Your task to perform on an android device: turn on translation in the chrome app Image 0: 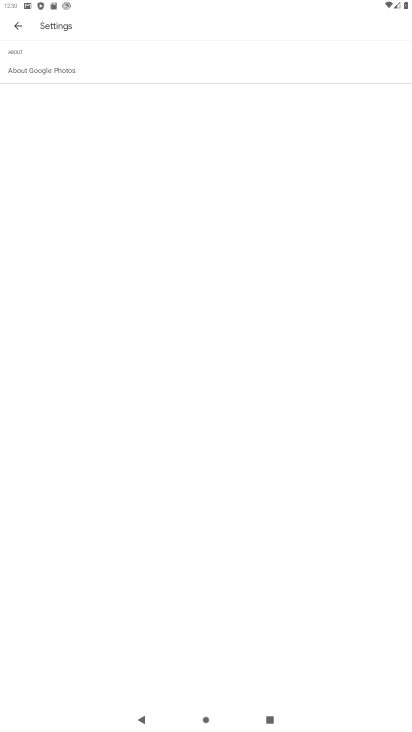
Step 0: press home button
Your task to perform on an android device: turn on translation in the chrome app Image 1: 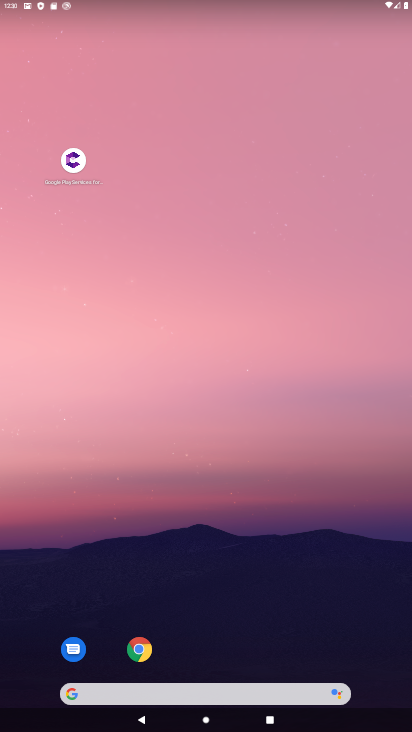
Step 1: click (131, 646)
Your task to perform on an android device: turn on translation in the chrome app Image 2: 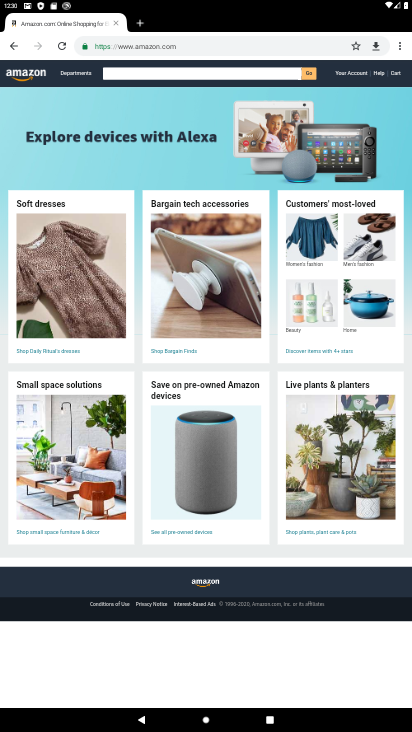
Step 2: click (397, 48)
Your task to perform on an android device: turn on translation in the chrome app Image 3: 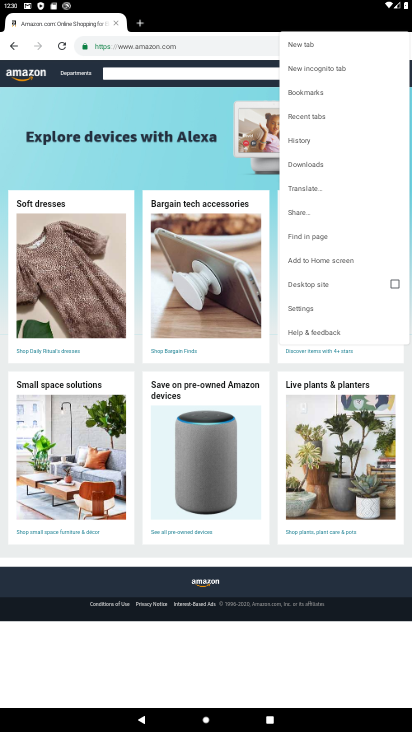
Step 3: click (312, 310)
Your task to perform on an android device: turn on translation in the chrome app Image 4: 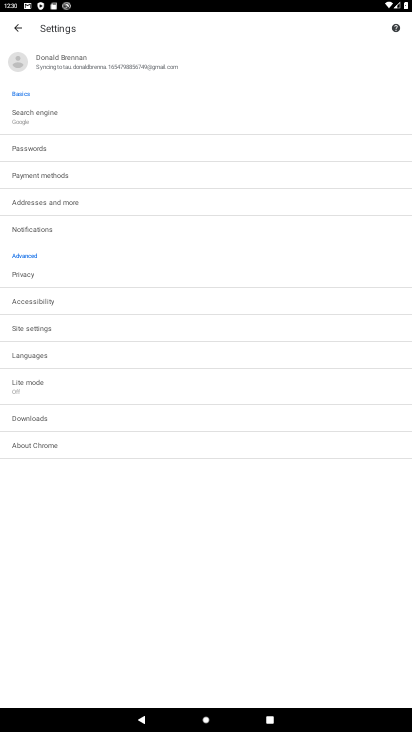
Step 4: click (23, 360)
Your task to perform on an android device: turn on translation in the chrome app Image 5: 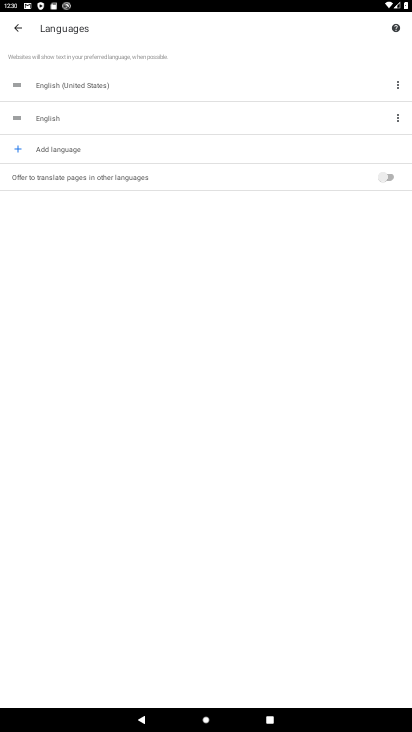
Step 5: click (391, 178)
Your task to perform on an android device: turn on translation in the chrome app Image 6: 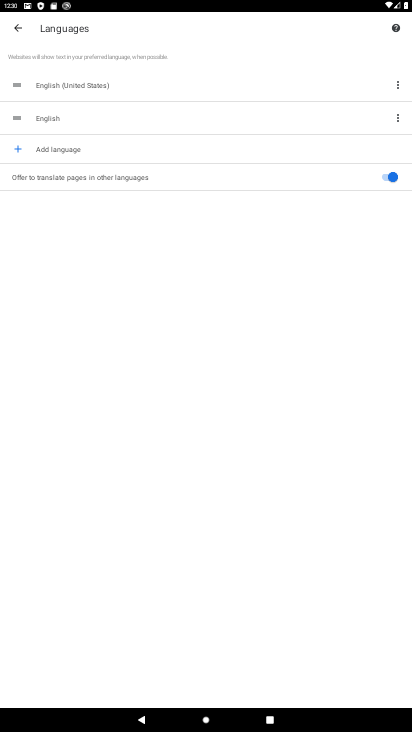
Step 6: task complete